Your task to perform on an android device: Add usb-a to the cart on bestbuy Image 0: 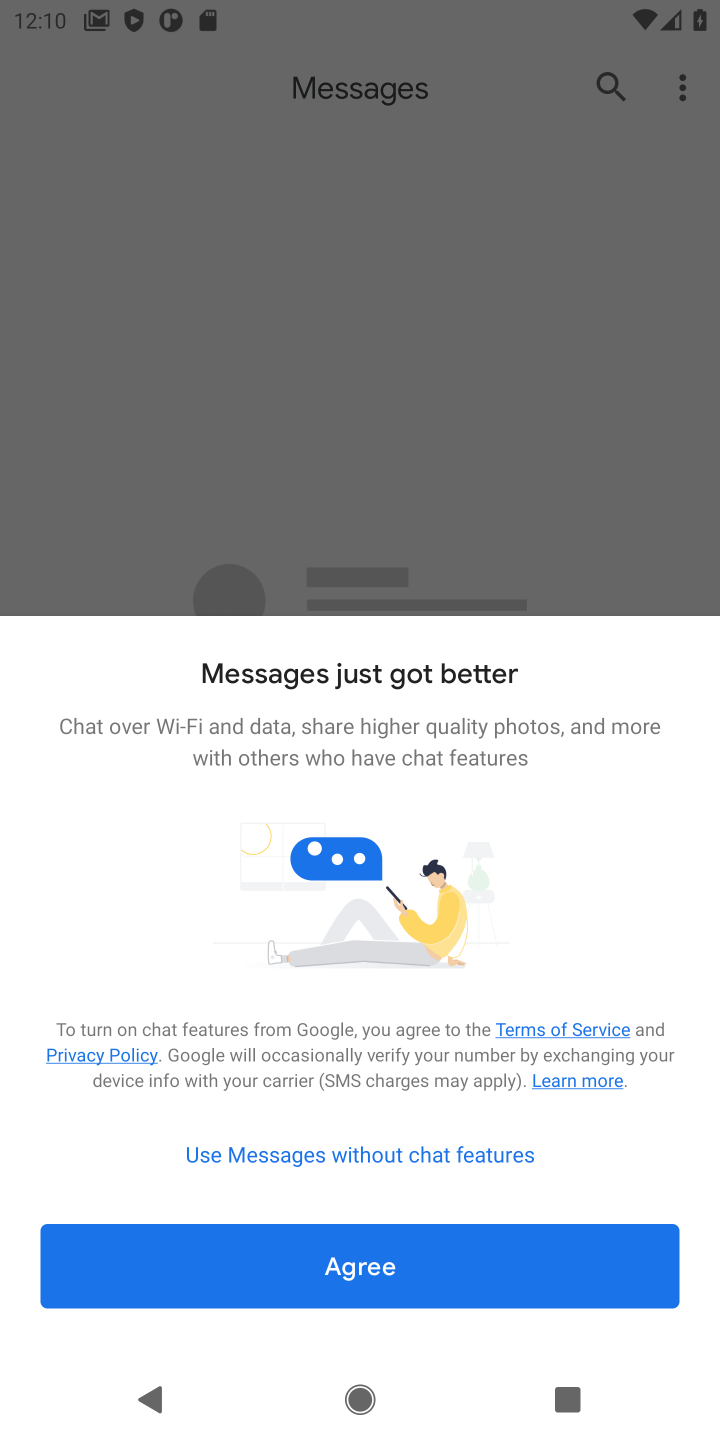
Step 0: press home button
Your task to perform on an android device: Add usb-a to the cart on bestbuy Image 1: 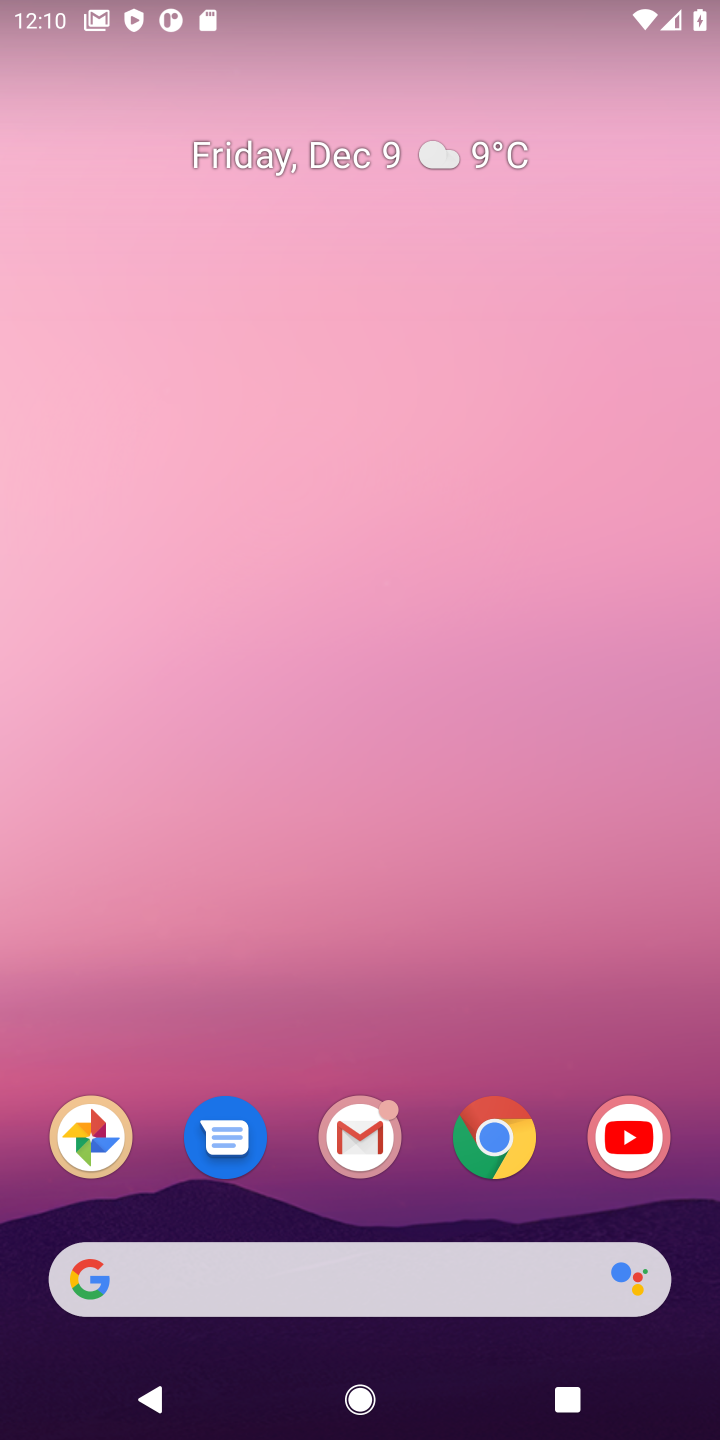
Step 1: click (429, 1266)
Your task to perform on an android device: Add usb-a to the cart on bestbuy Image 2: 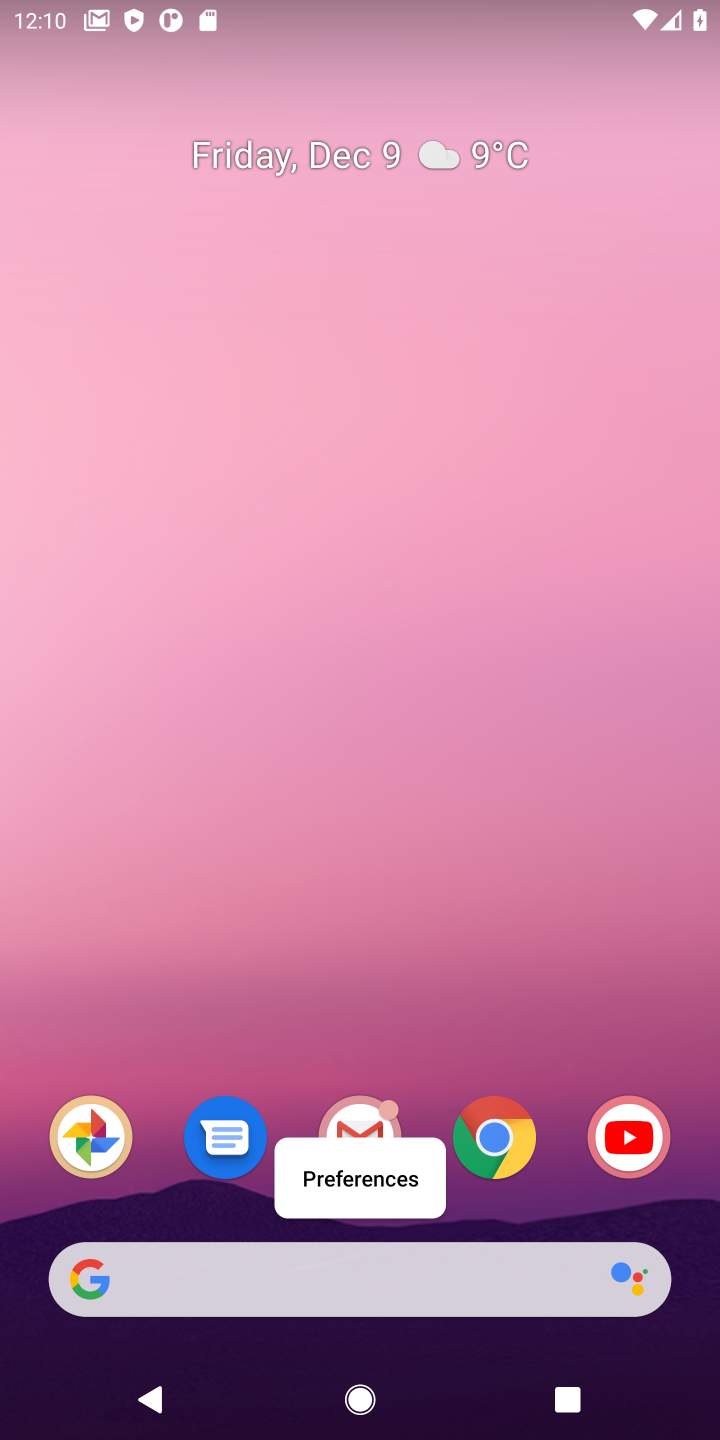
Step 2: type "bestbuy"
Your task to perform on an android device: Add usb-a to the cart on bestbuy Image 3: 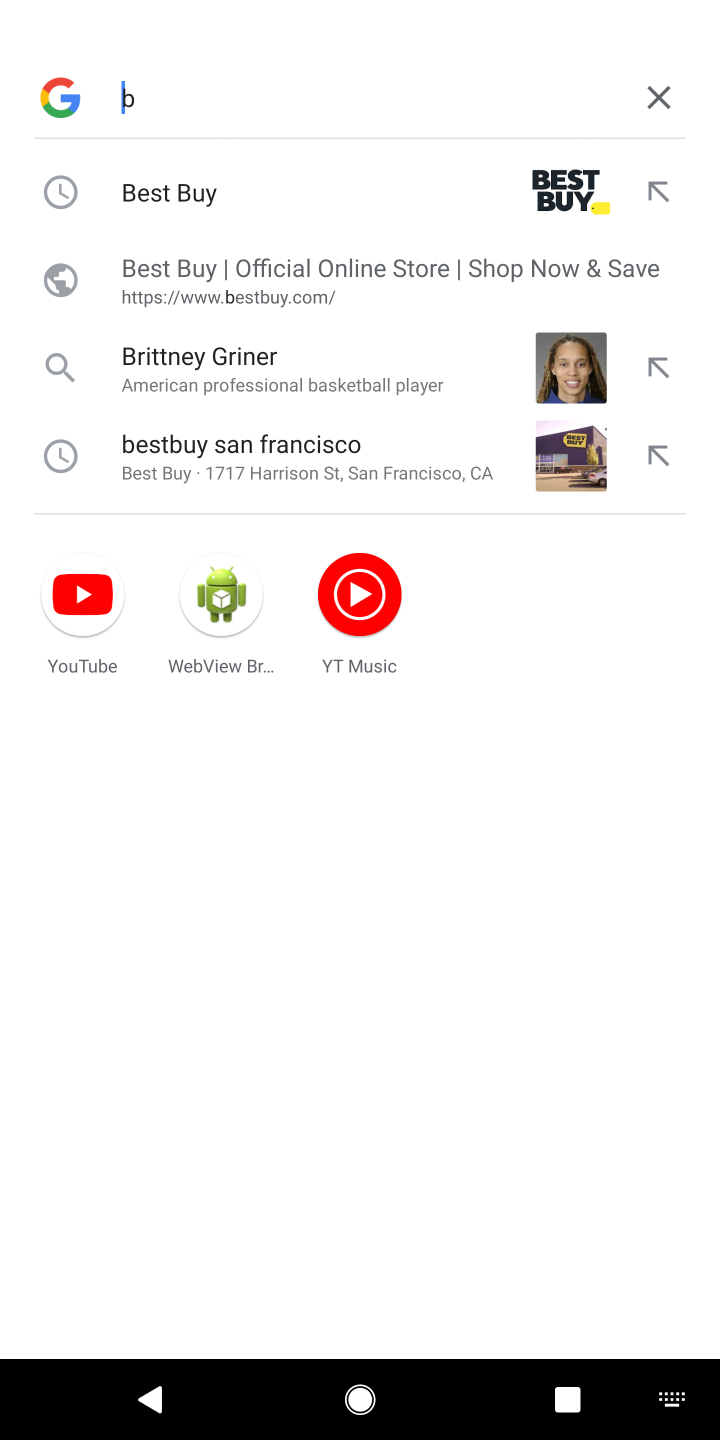
Step 3: click (169, 193)
Your task to perform on an android device: Add usb-a to the cart on bestbuy Image 4: 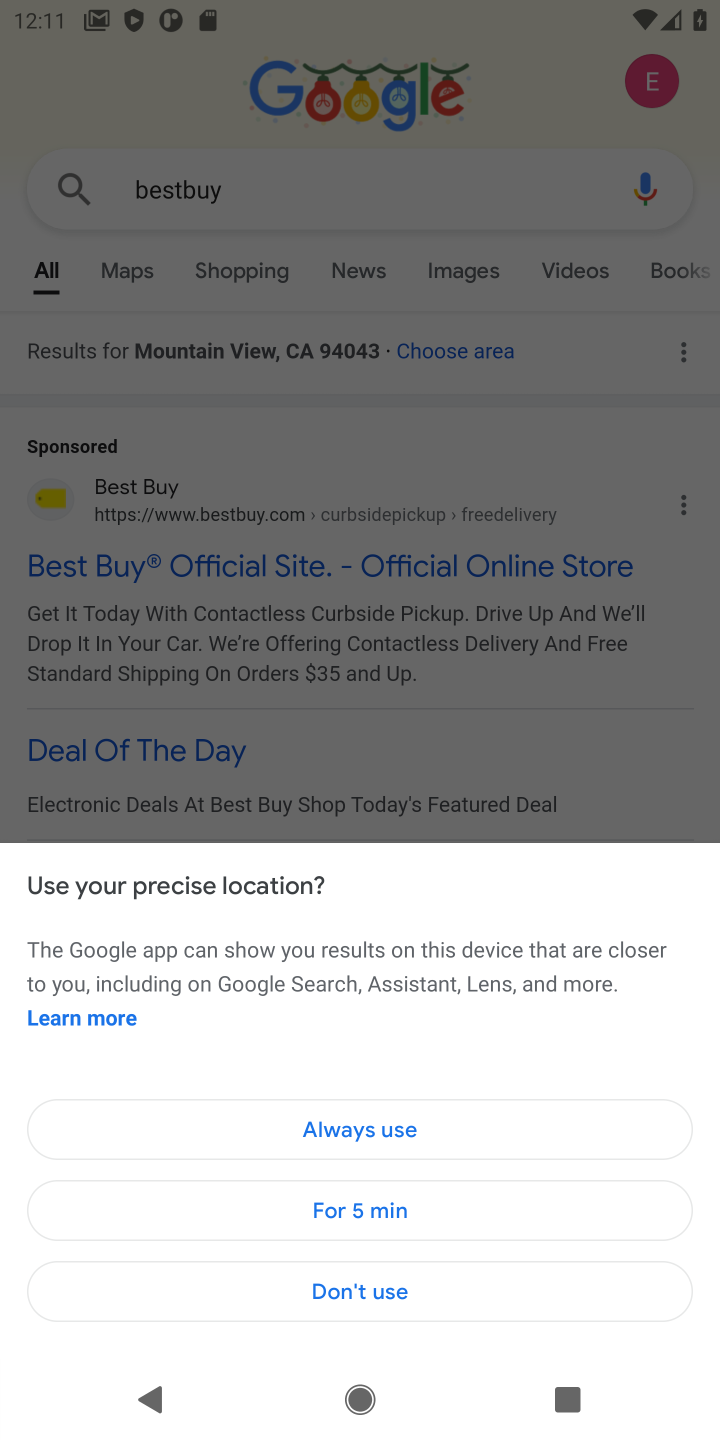
Step 4: click (365, 1283)
Your task to perform on an android device: Add usb-a to the cart on bestbuy Image 5: 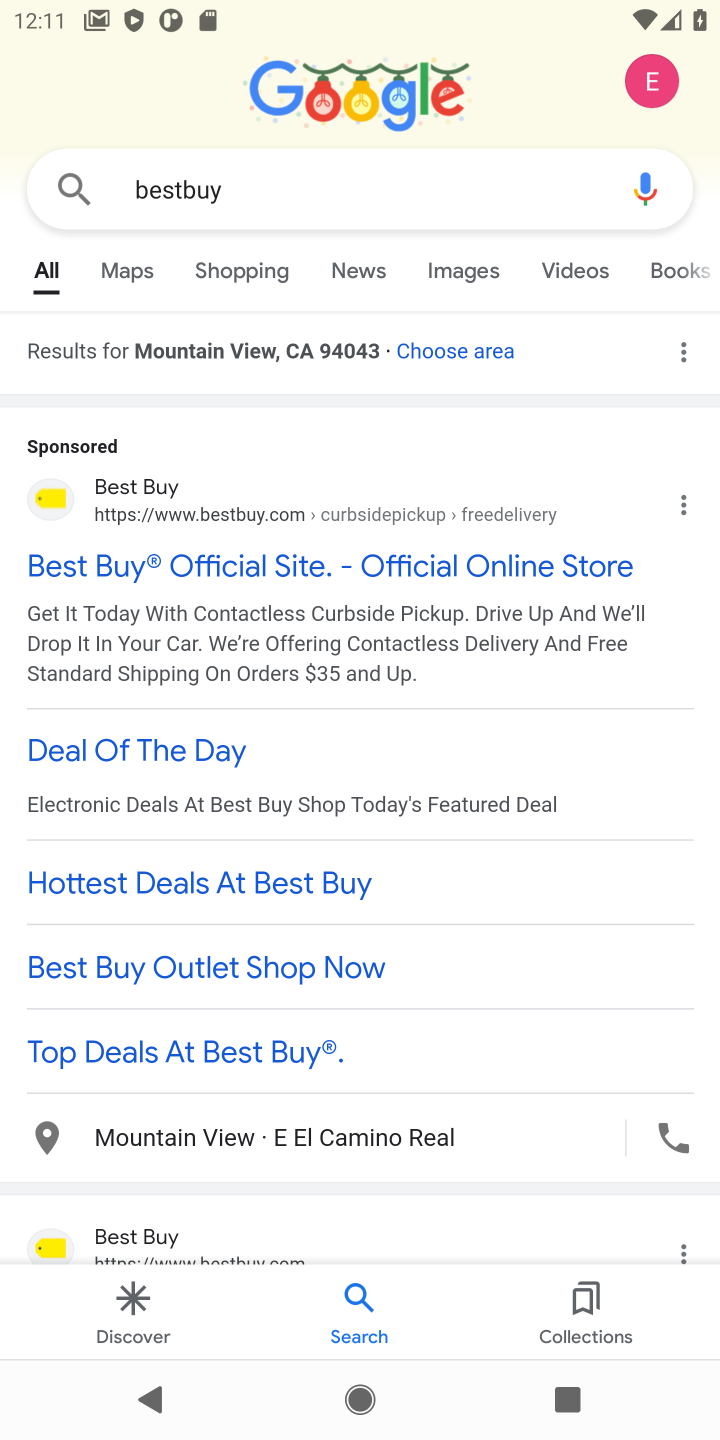
Step 5: click (154, 582)
Your task to perform on an android device: Add usb-a to the cart on bestbuy Image 6: 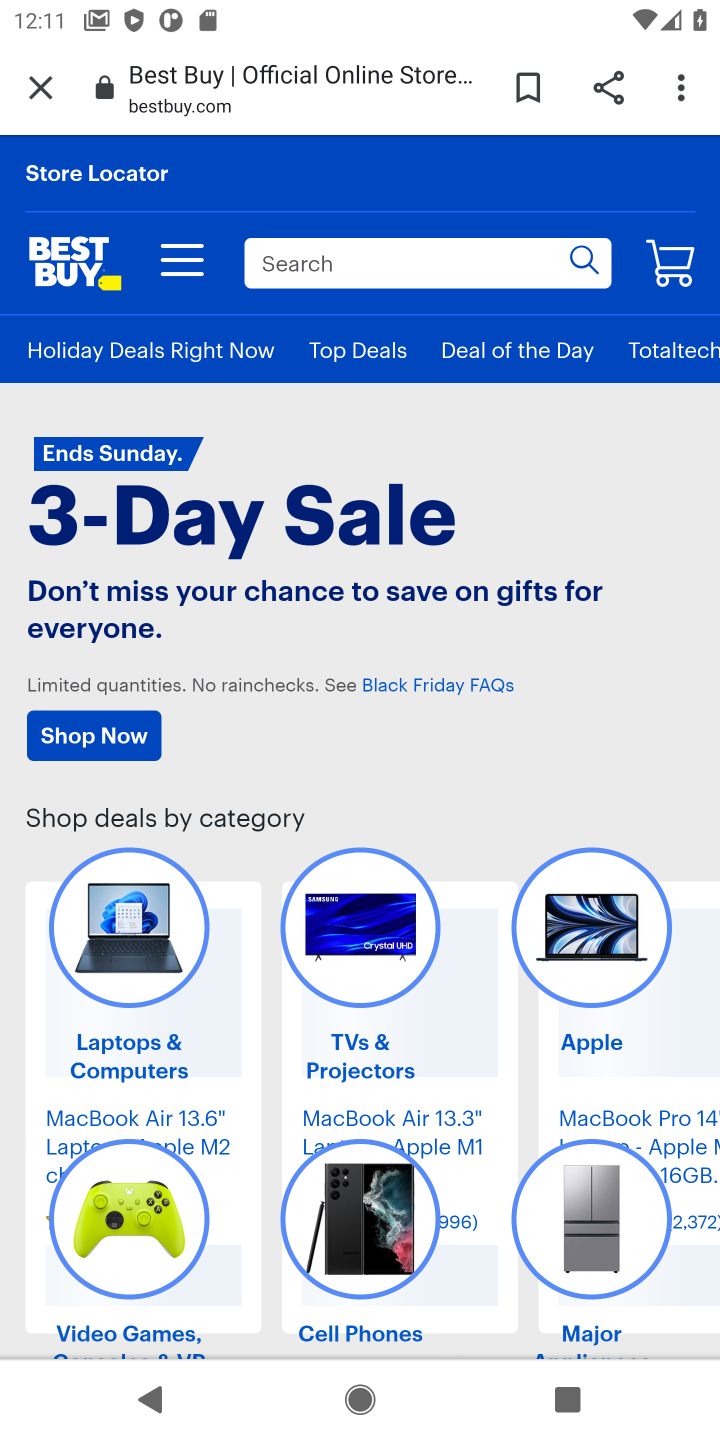
Step 6: click (373, 278)
Your task to perform on an android device: Add usb-a to the cart on bestbuy Image 7: 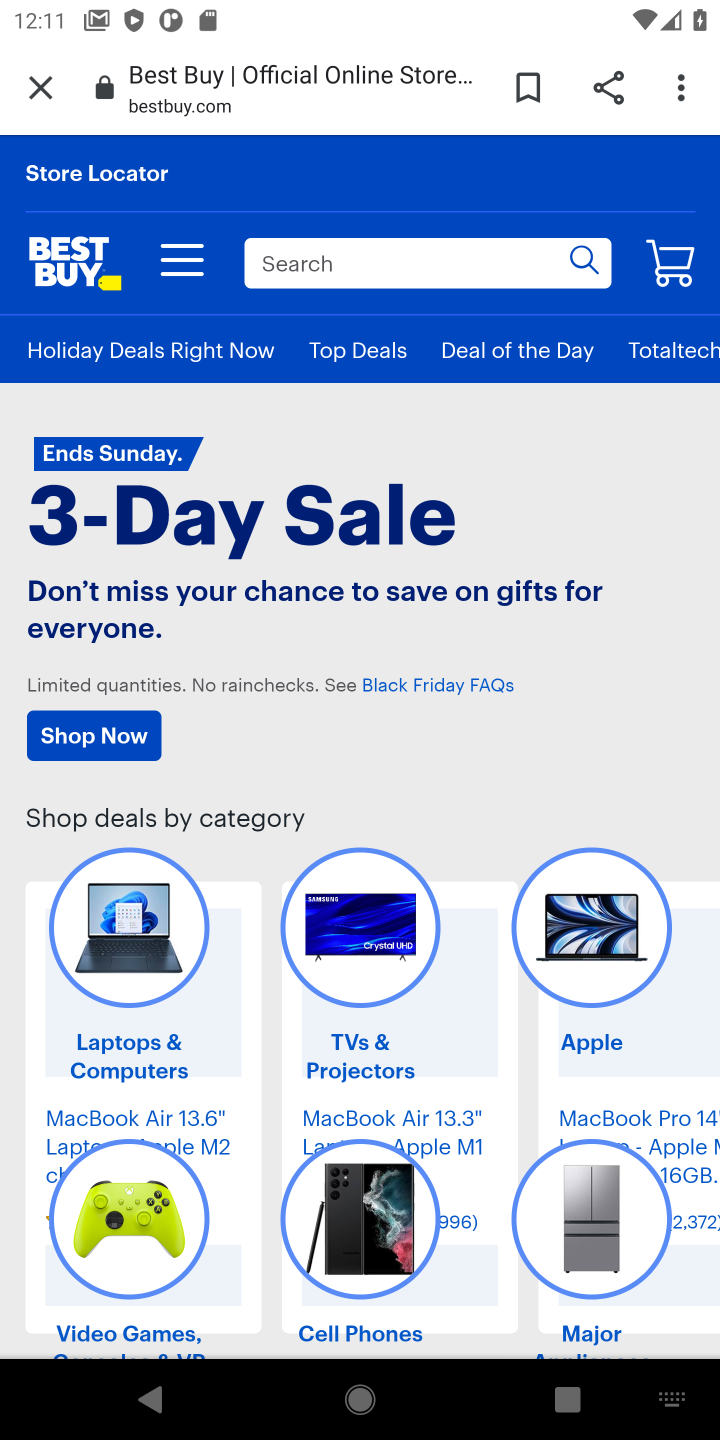
Step 7: click (648, 273)
Your task to perform on an android device: Add usb-a to the cart on bestbuy Image 8: 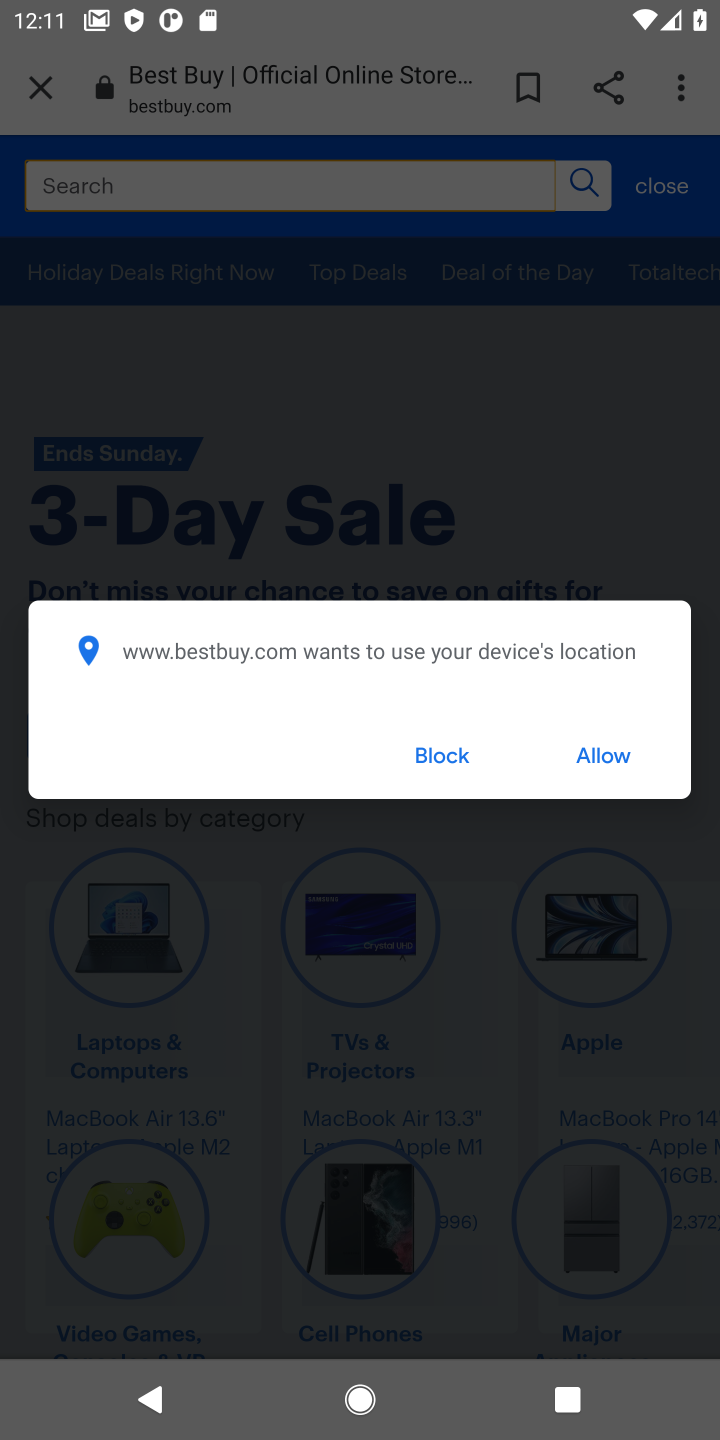
Step 8: click (430, 748)
Your task to perform on an android device: Add usb-a to the cart on bestbuy Image 9: 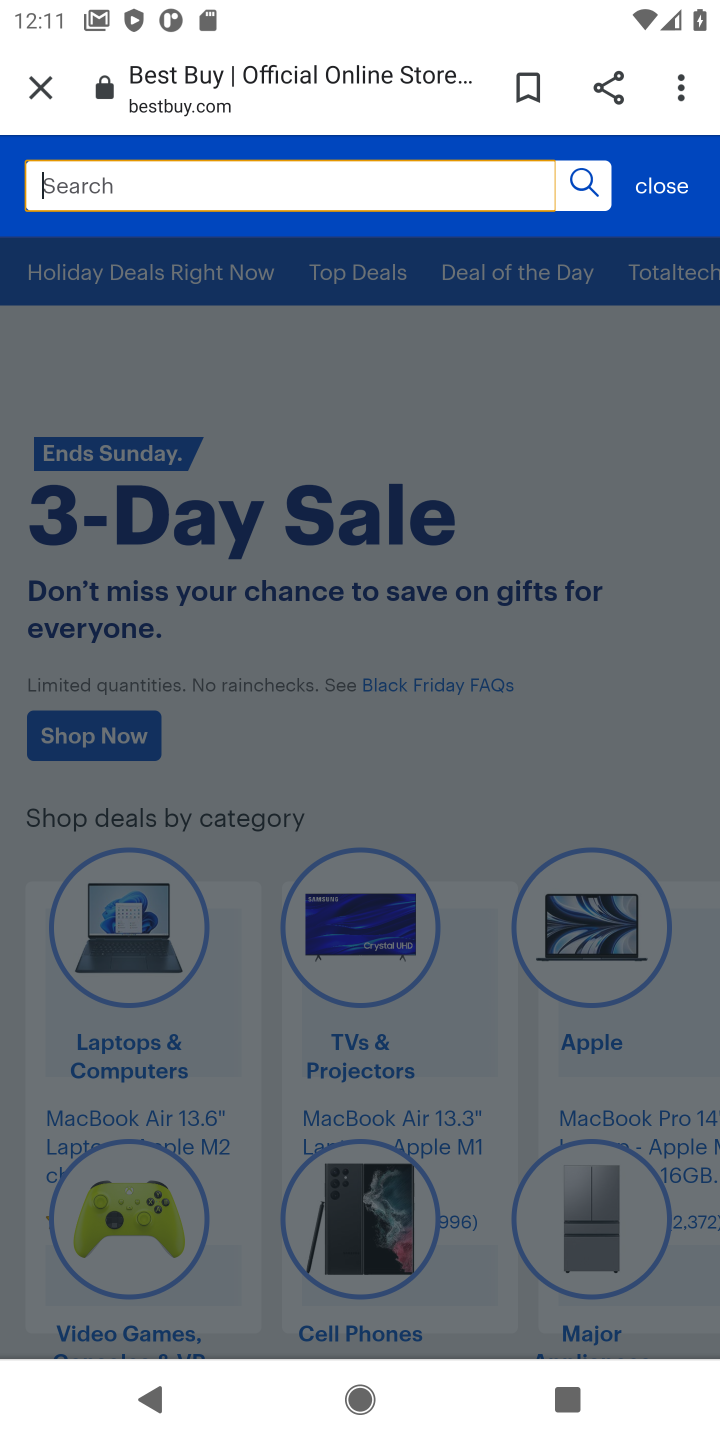
Step 9: type "usb-a"
Your task to perform on an android device: Add usb-a to the cart on bestbuy Image 10: 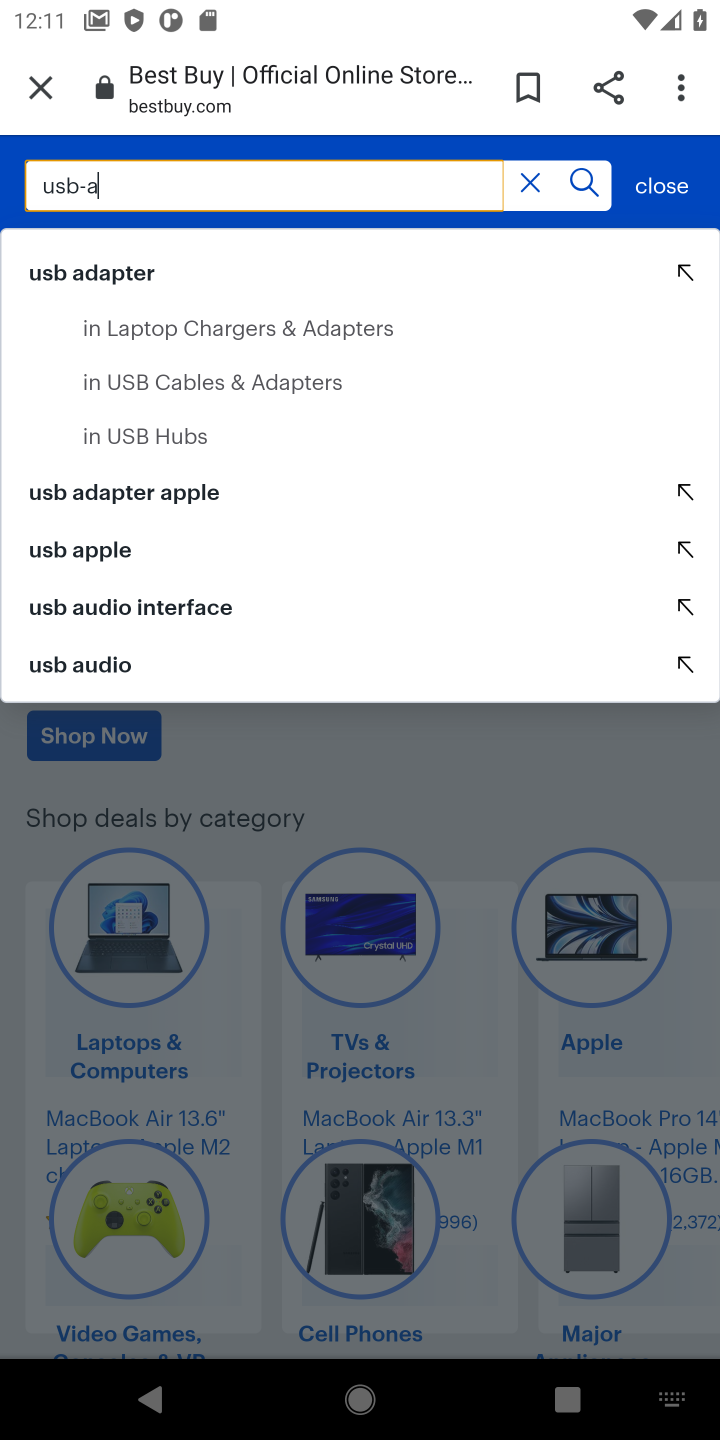
Step 10: click (585, 188)
Your task to perform on an android device: Add usb-a to the cart on bestbuy Image 11: 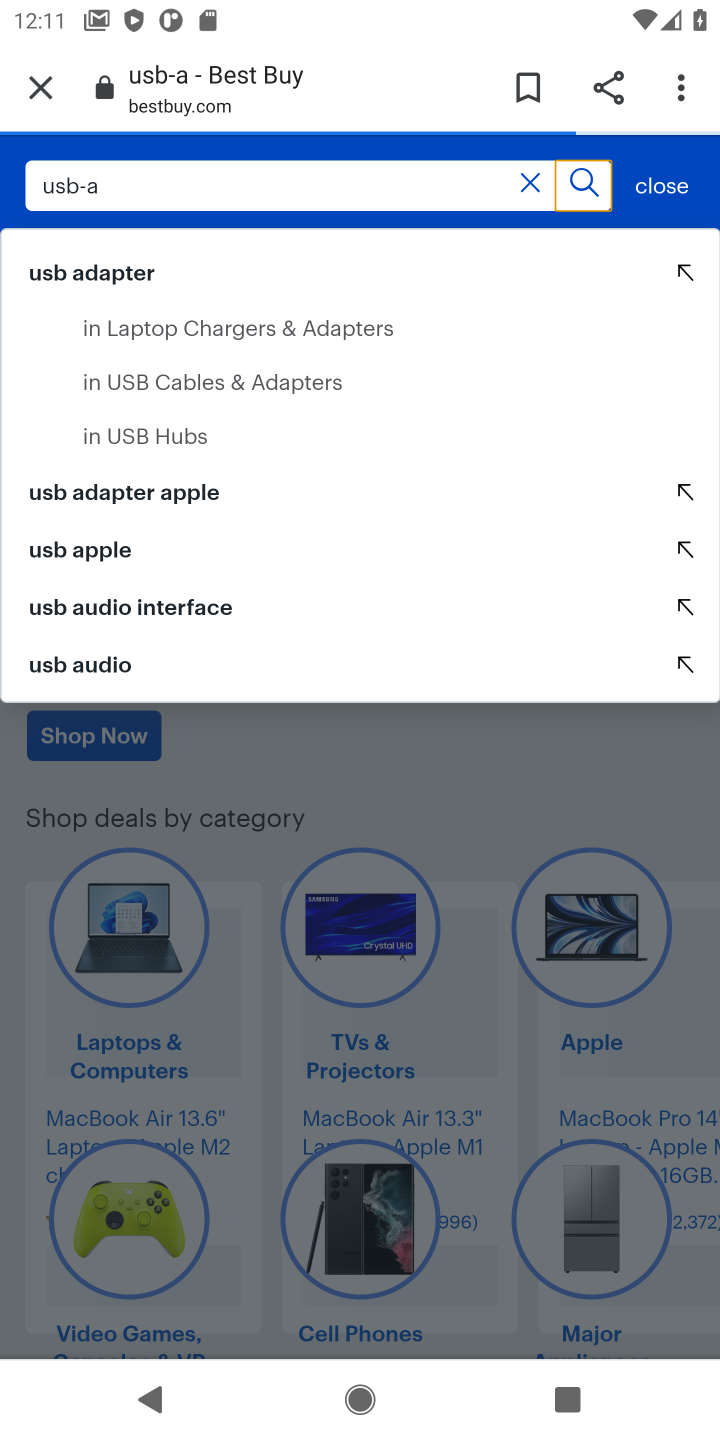
Step 11: task complete